Your task to perform on an android device: delete a single message in the gmail app Image 0: 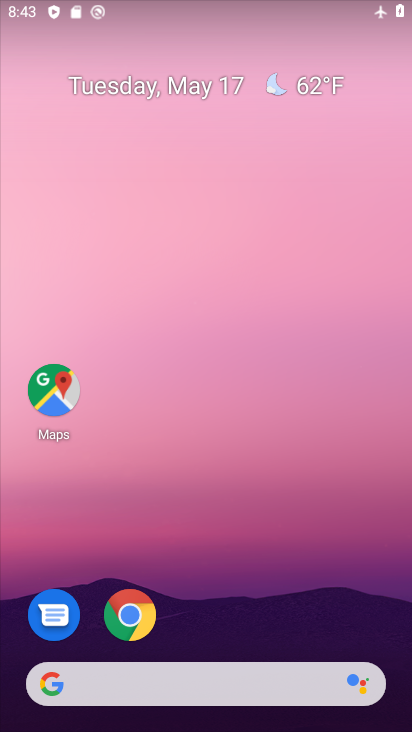
Step 0: drag from (257, 616) to (306, 181)
Your task to perform on an android device: delete a single message in the gmail app Image 1: 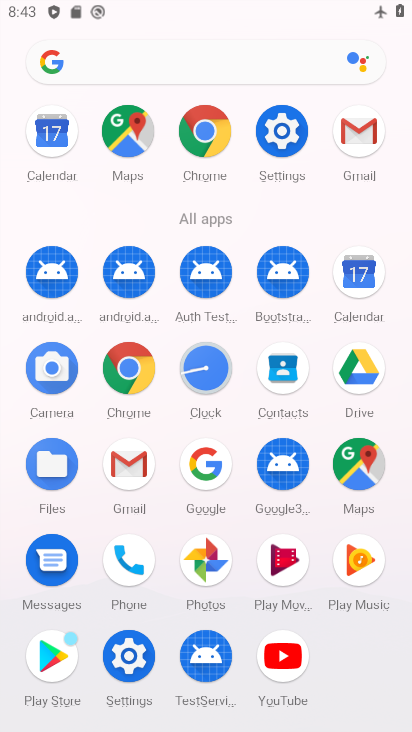
Step 1: click (120, 448)
Your task to perform on an android device: delete a single message in the gmail app Image 2: 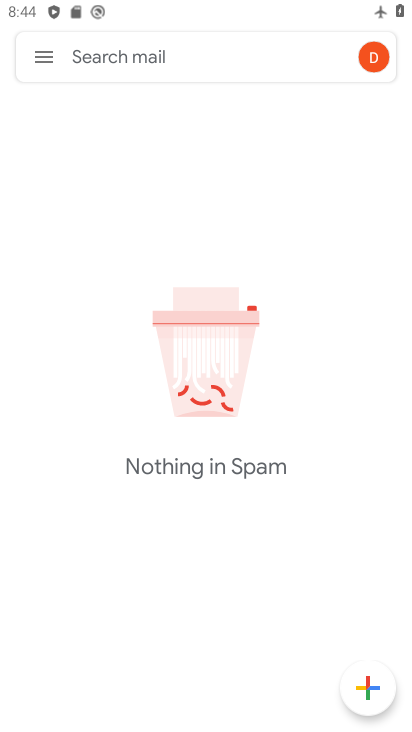
Step 2: click (57, 64)
Your task to perform on an android device: delete a single message in the gmail app Image 3: 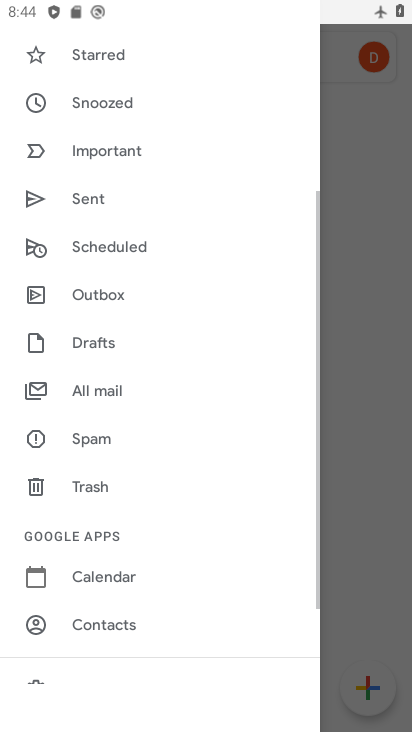
Step 3: click (72, 382)
Your task to perform on an android device: delete a single message in the gmail app Image 4: 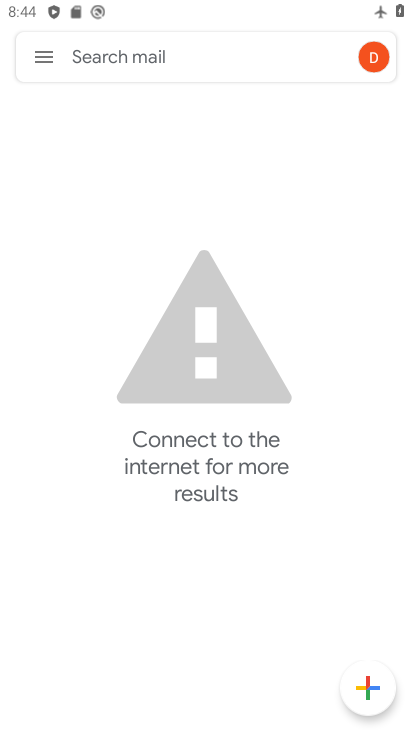
Step 4: drag from (384, 5) to (371, 584)
Your task to perform on an android device: delete a single message in the gmail app Image 5: 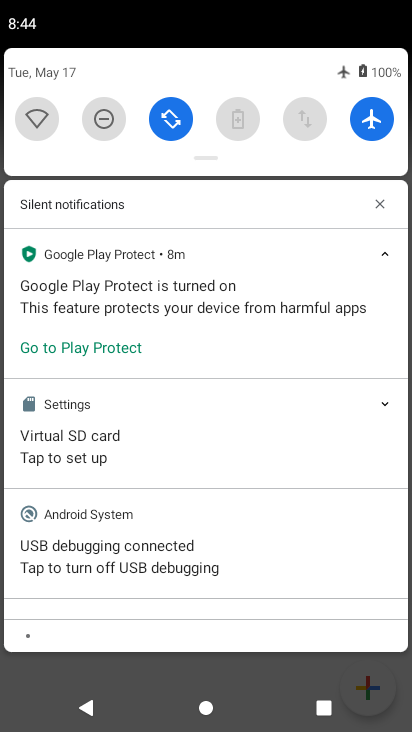
Step 5: click (383, 124)
Your task to perform on an android device: delete a single message in the gmail app Image 6: 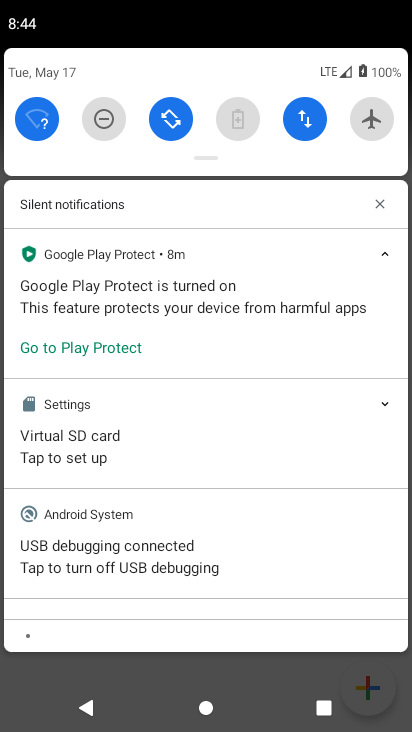
Step 6: task complete